Your task to perform on an android device: Go to eBay Image 0: 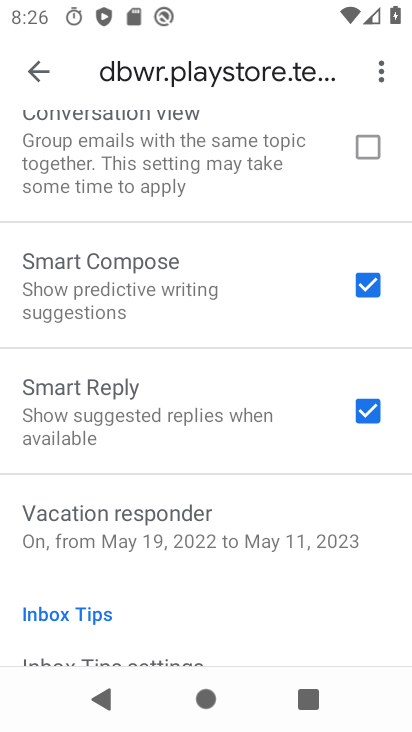
Step 0: press home button
Your task to perform on an android device: Go to eBay Image 1: 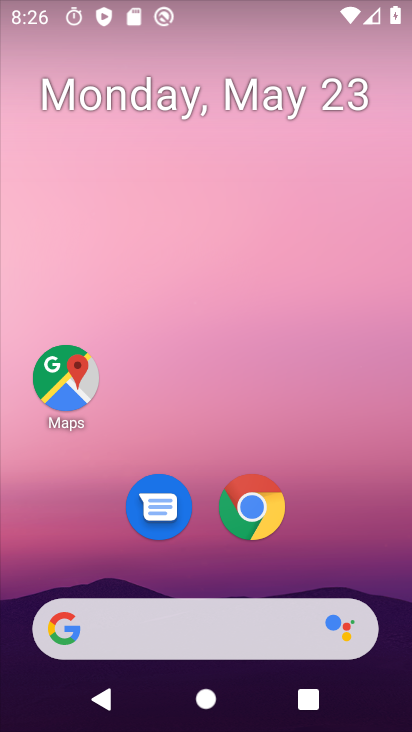
Step 1: click (262, 512)
Your task to perform on an android device: Go to eBay Image 2: 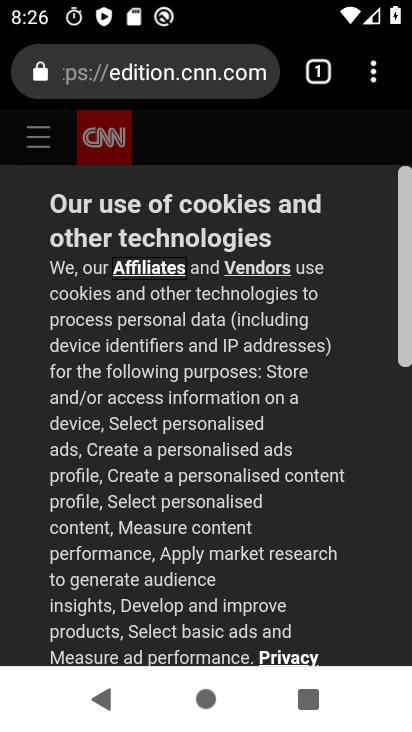
Step 2: click (198, 75)
Your task to perform on an android device: Go to eBay Image 3: 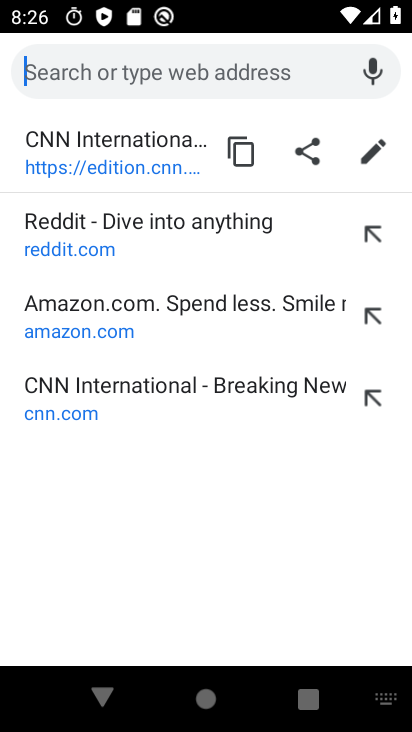
Step 3: type "ebay"
Your task to perform on an android device: Go to eBay Image 4: 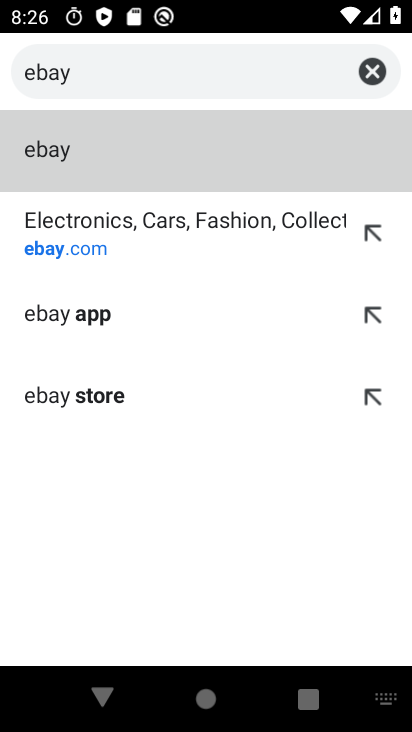
Step 4: click (89, 239)
Your task to perform on an android device: Go to eBay Image 5: 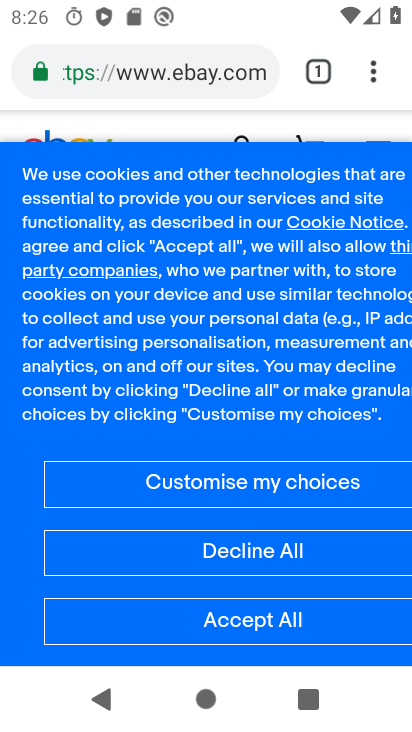
Step 5: task complete